Your task to perform on an android device: Open the stopwatch Image 0: 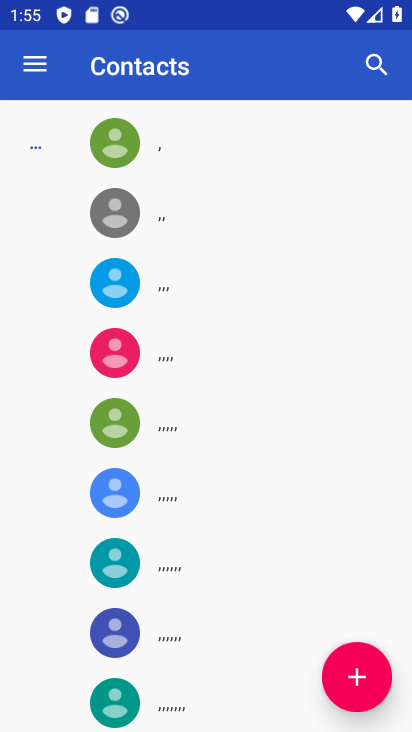
Step 0: press home button
Your task to perform on an android device: Open the stopwatch Image 1: 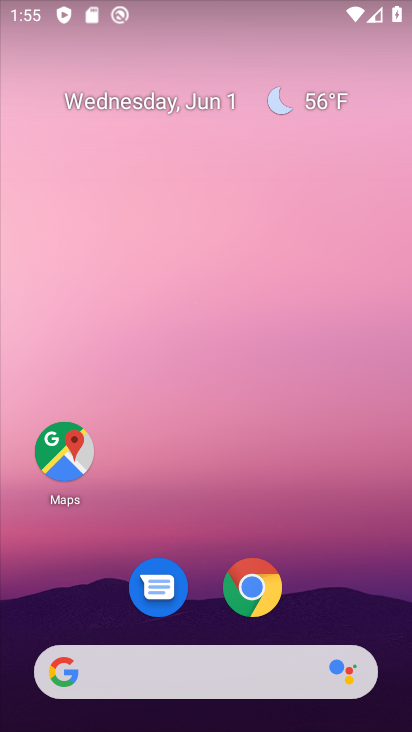
Step 1: drag from (350, 601) to (323, 187)
Your task to perform on an android device: Open the stopwatch Image 2: 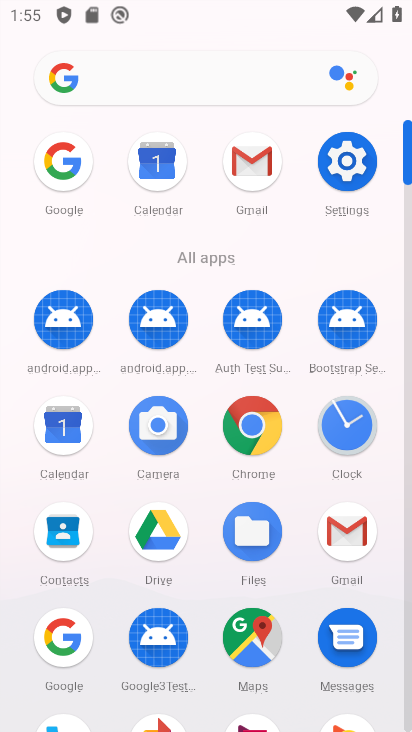
Step 2: click (334, 424)
Your task to perform on an android device: Open the stopwatch Image 3: 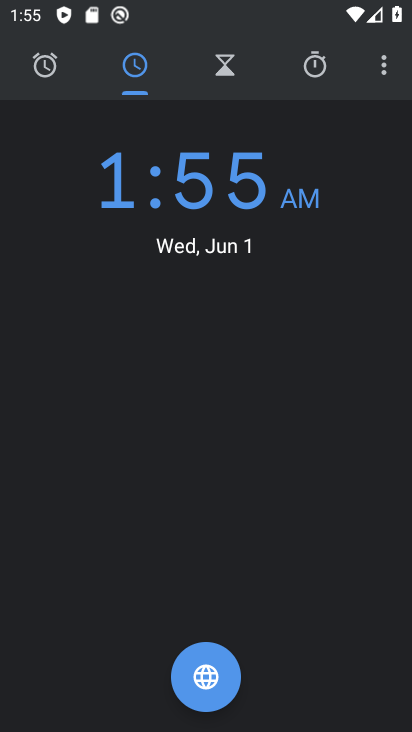
Step 3: click (302, 68)
Your task to perform on an android device: Open the stopwatch Image 4: 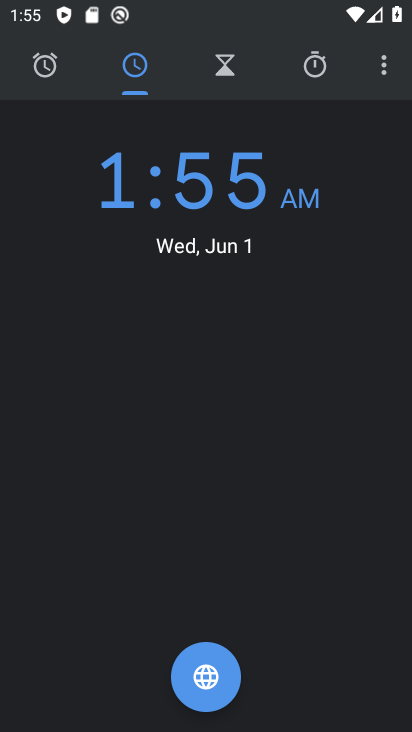
Step 4: click (314, 77)
Your task to perform on an android device: Open the stopwatch Image 5: 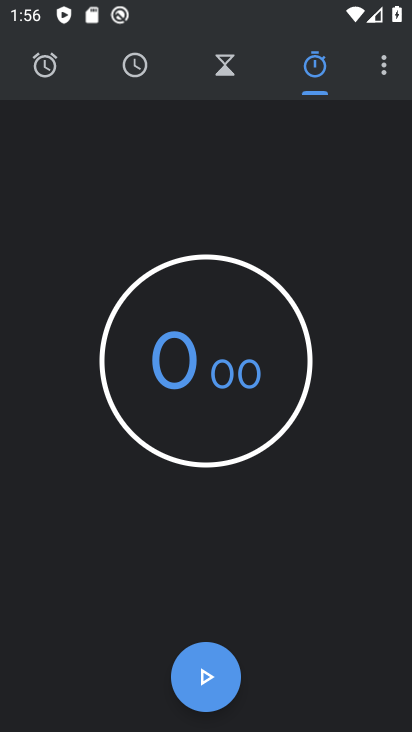
Step 5: task complete